Your task to perform on an android device: Check the weather Image 0: 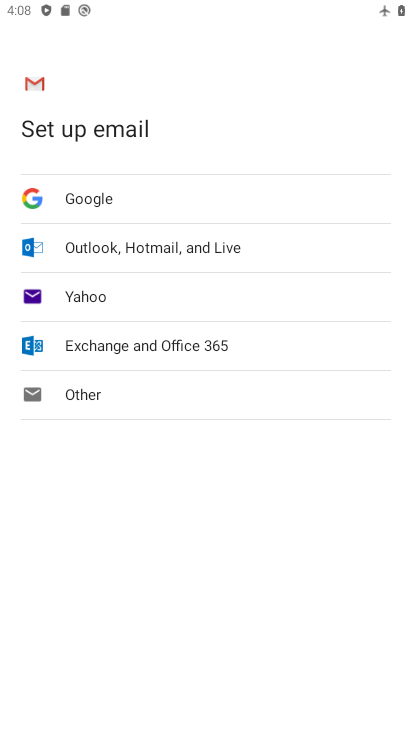
Step 0: press home button
Your task to perform on an android device: Check the weather Image 1: 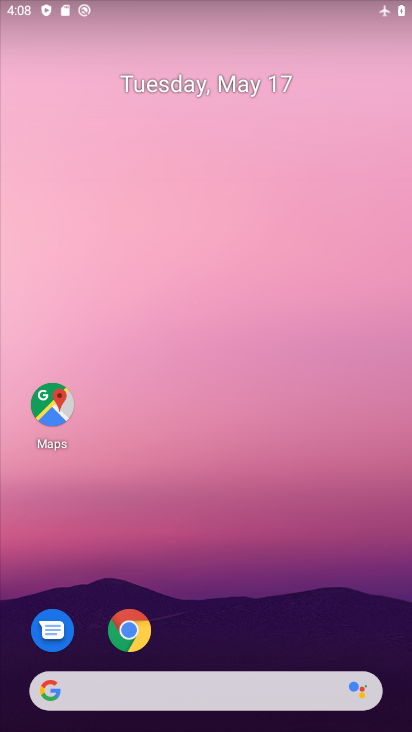
Step 1: drag from (216, 725) to (220, 127)
Your task to perform on an android device: Check the weather Image 2: 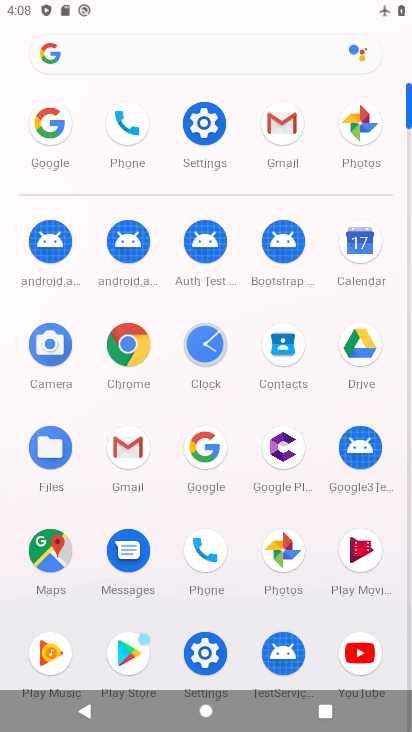
Step 2: click (199, 447)
Your task to perform on an android device: Check the weather Image 3: 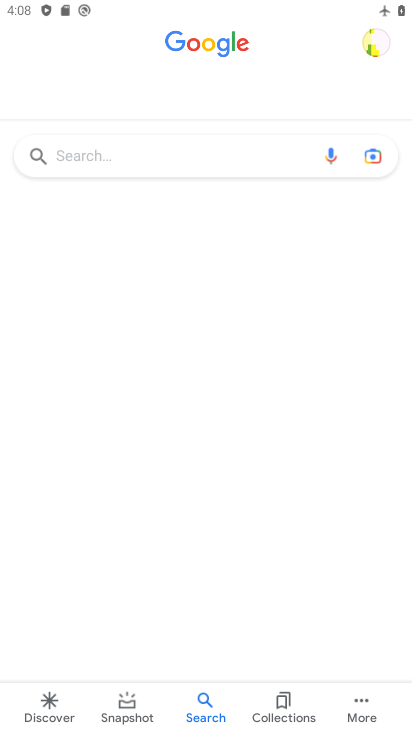
Step 3: click (216, 163)
Your task to perform on an android device: Check the weather Image 4: 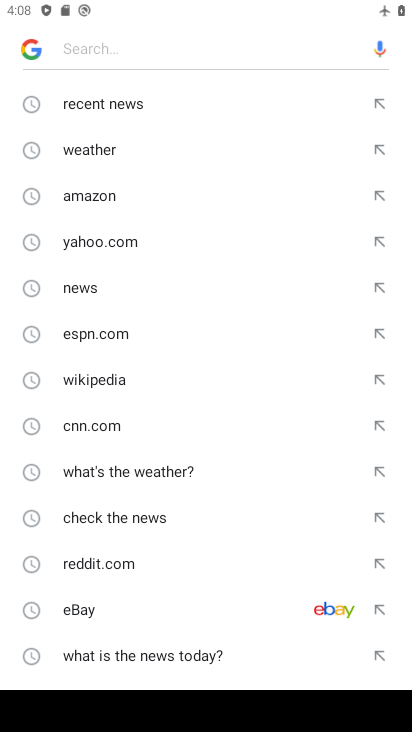
Step 4: click (84, 150)
Your task to perform on an android device: Check the weather Image 5: 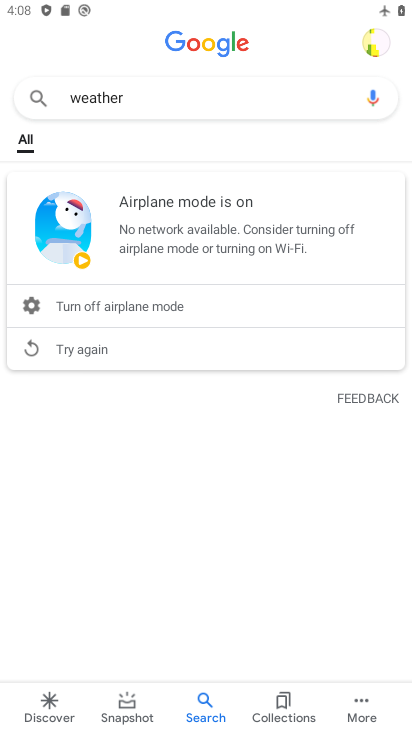
Step 5: task complete